Your task to perform on an android device: toggle notifications settings in the gmail app Image 0: 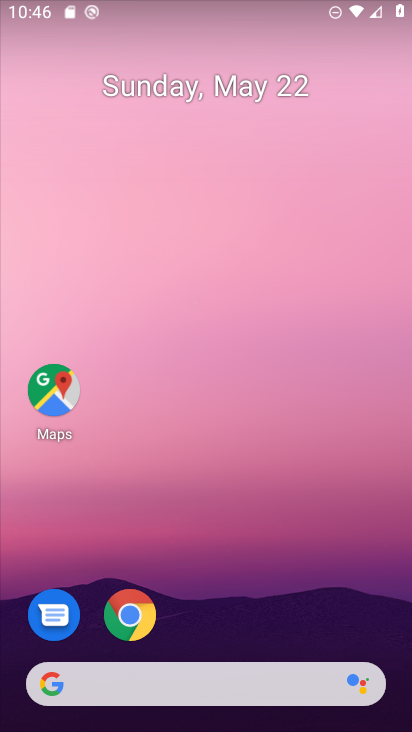
Step 0: drag from (272, 609) to (232, 143)
Your task to perform on an android device: toggle notifications settings in the gmail app Image 1: 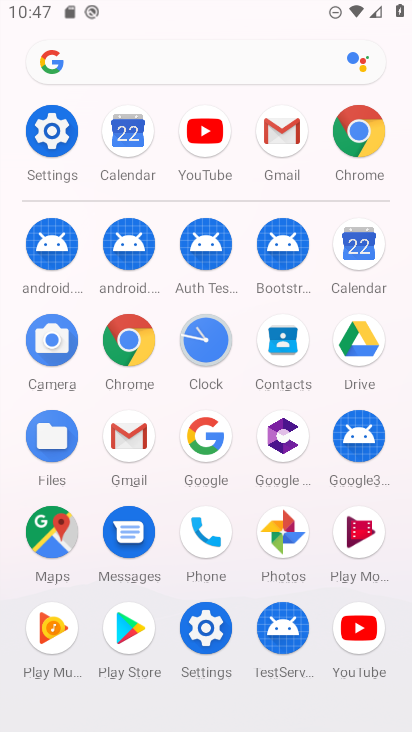
Step 1: click (294, 140)
Your task to perform on an android device: toggle notifications settings in the gmail app Image 2: 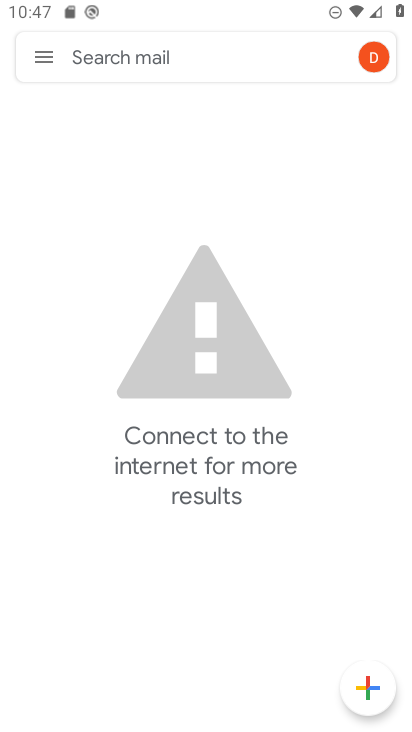
Step 2: click (51, 47)
Your task to perform on an android device: toggle notifications settings in the gmail app Image 3: 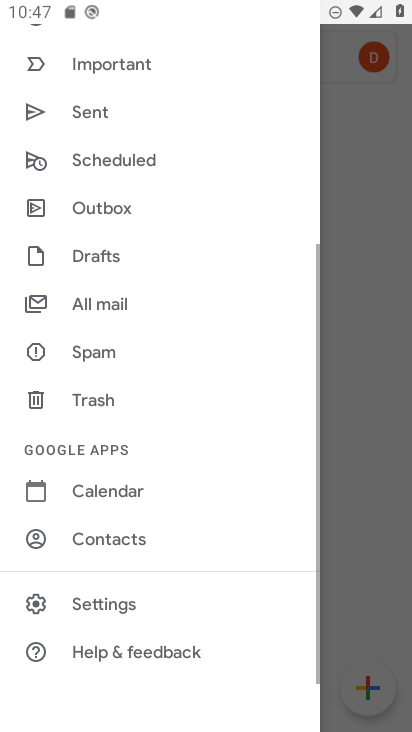
Step 3: click (113, 612)
Your task to perform on an android device: toggle notifications settings in the gmail app Image 4: 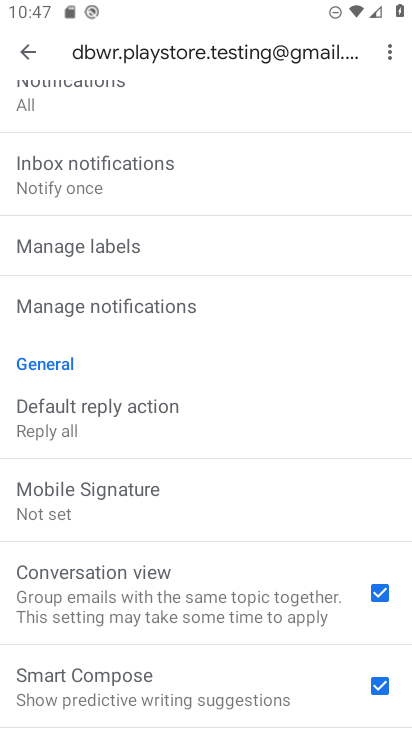
Step 4: drag from (115, 600) to (146, 157)
Your task to perform on an android device: toggle notifications settings in the gmail app Image 5: 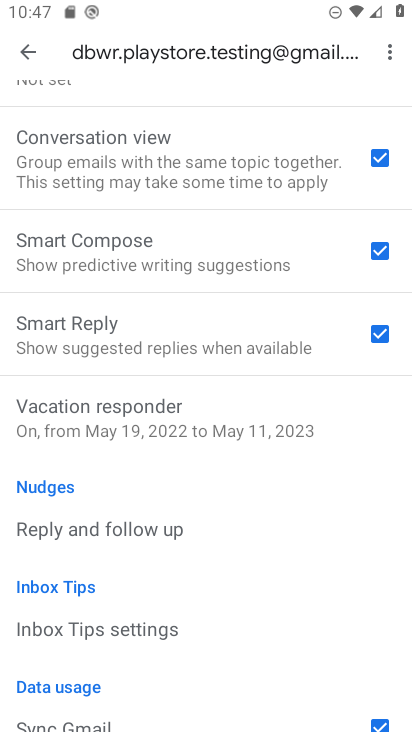
Step 5: drag from (146, 246) to (167, 687)
Your task to perform on an android device: toggle notifications settings in the gmail app Image 6: 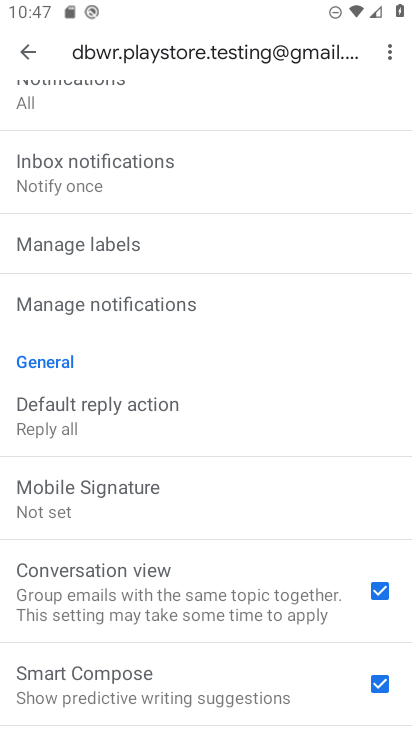
Step 6: click (128, 308)
Your task to perform on an android device: toggle notifications settings in the gmail app Image 7: 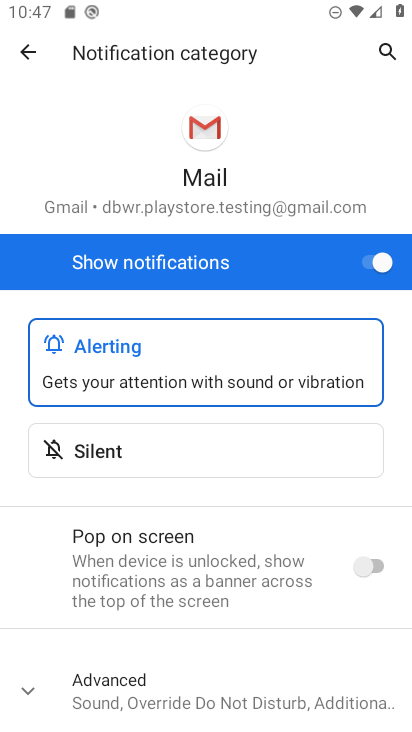
Step 7: click (382, 266)
Your task to perform on an android device: toggle notifications settings in the gmail app Image 8: 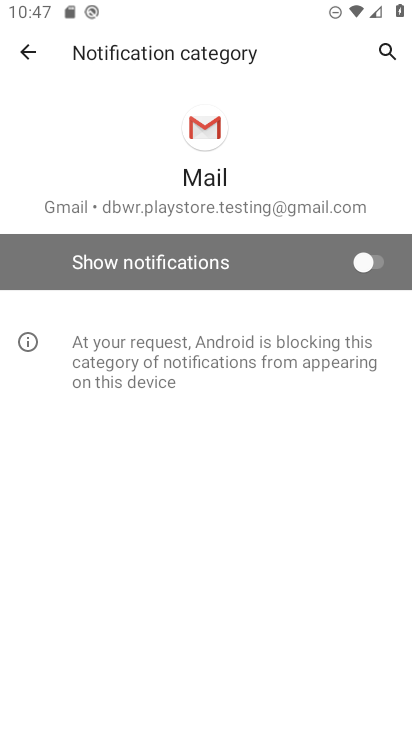
Step 8: task complete